Your task to perform on an android device: show emergency info Image 0: 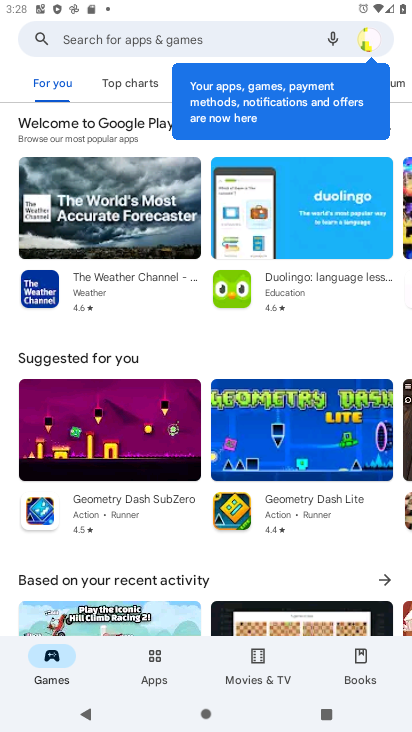
Step 0: press home button
Your task to perform on an android device: show emergency info Image 1: 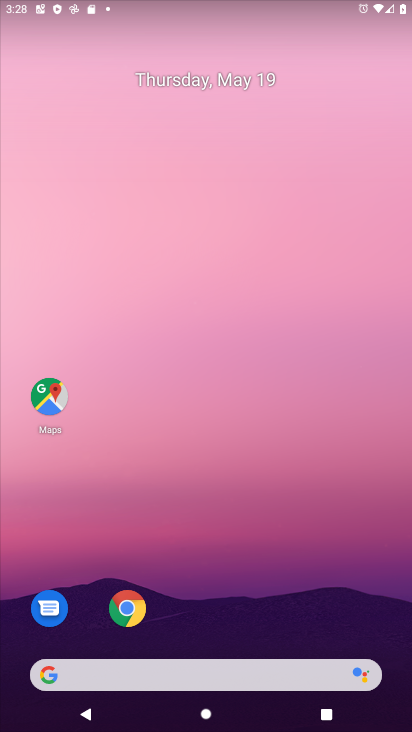
Step 1: drag from (293, 612) to (165, 44)
Your task to perform on an android device: show emergency info Image 2: 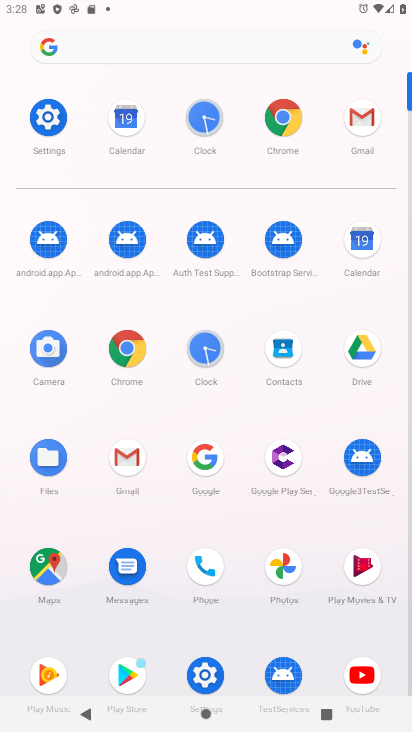
Step 2: click (61, 143)
Your task to perform on an android device: show emergency info Image 3: 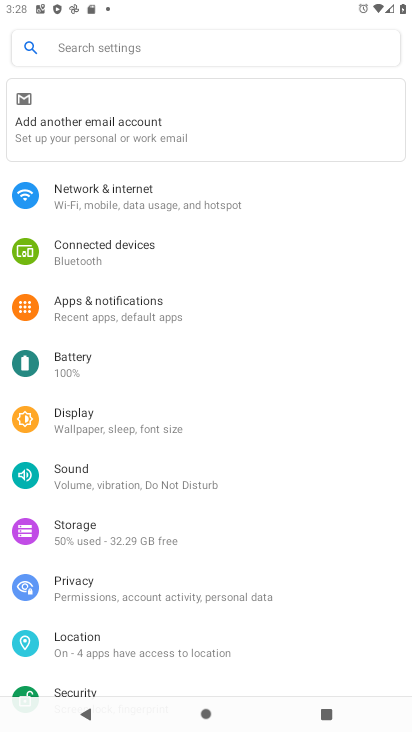
Step 3: drag from (232, 611) to (181, 356)
Your task to perform on an android device: show emergency info Image 4: 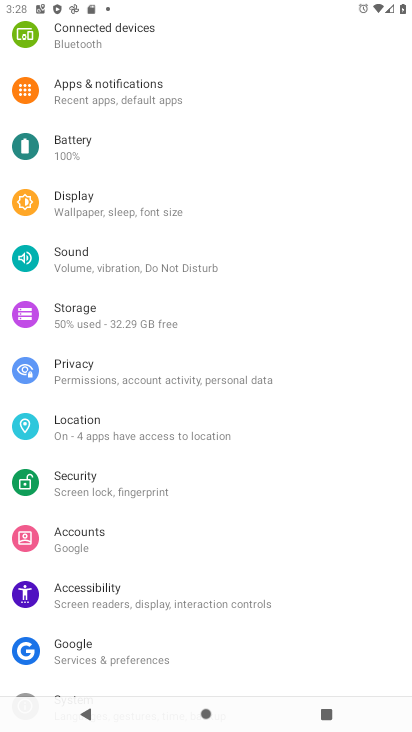
Step 4: drag from (196, 656) to (212, 268)
Your task to perform on an android device: show emergency info Image 5: 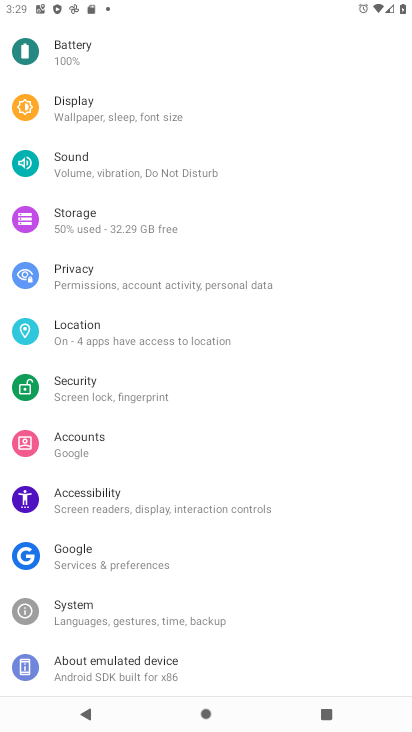
Step 5: click (226, 681)
Your task to perform on an android device: show emergency info Image 6: 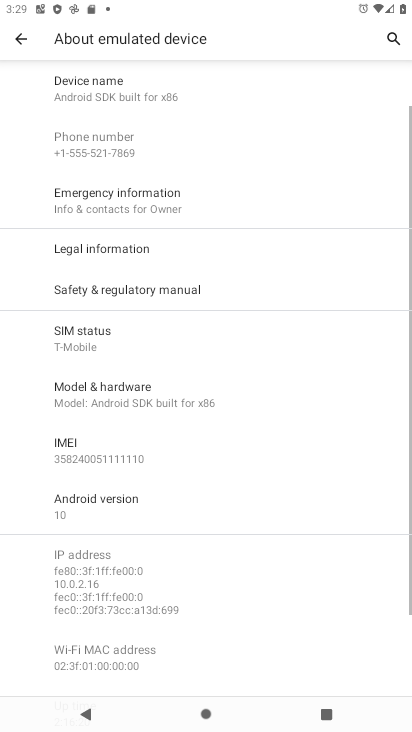
Step 6: click (165, 213)
Your task to perform on an android device: show emergency info Image 7: 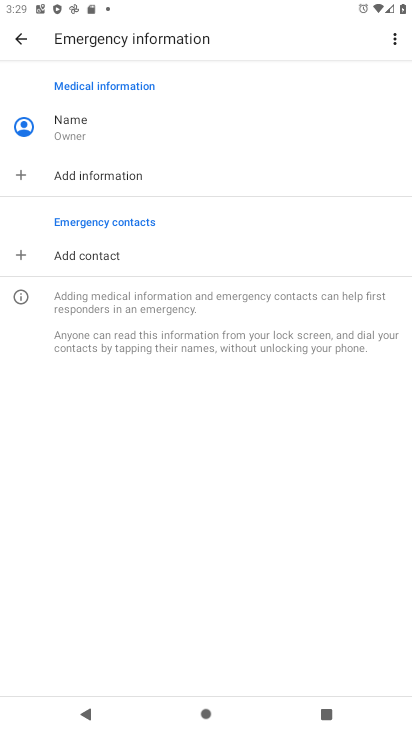
Step 7: task complete